Your task to perform on an android device: Go to internet settings Image 0: 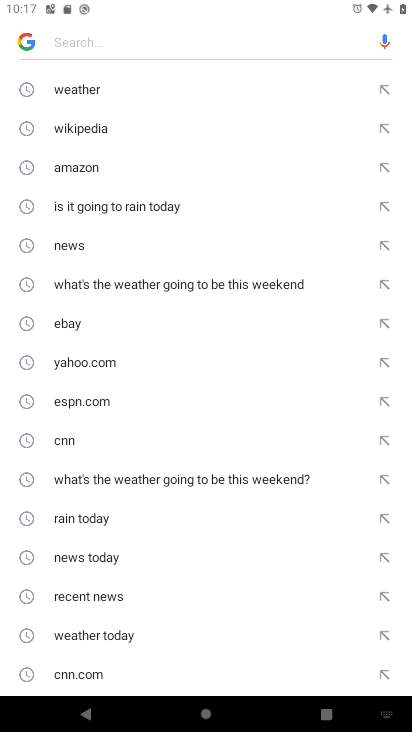
Step 0: press home button
Your task to perform on an android device: Go to internet settings Image 1: 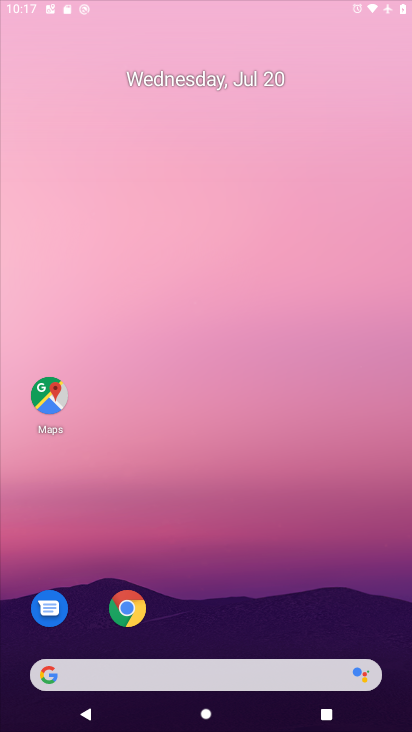
Step 1: drag from (195, 661) to (237, 329)
Your task to perform on an android device: Go to internet settings Image 2: 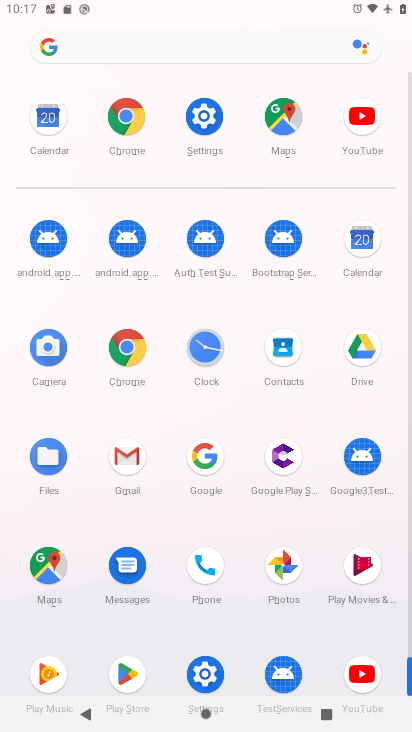
Step 2: click (209, 111)
Your task to perform on an android device: Go to internet settings Image 3: 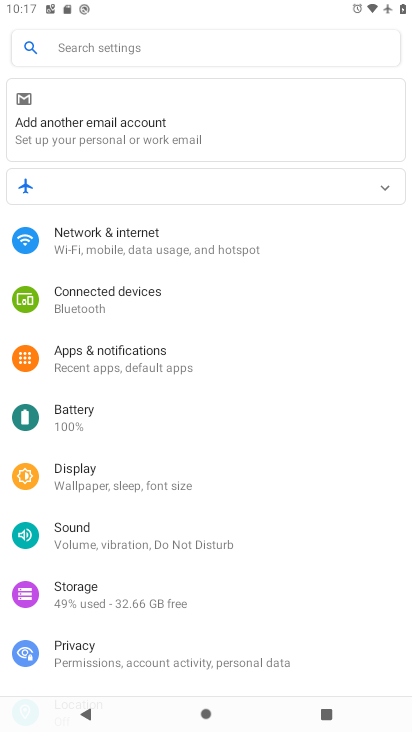
Step 3: click (140, 249)
Your task to perform on an android device: Go to internet settings Image 4: 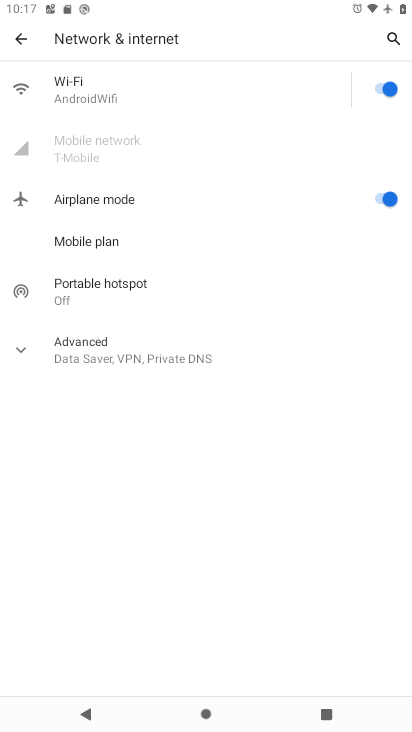
Step 4: click (243, 160)
Your task to perform on an android device: Go to internet settings Image 5: 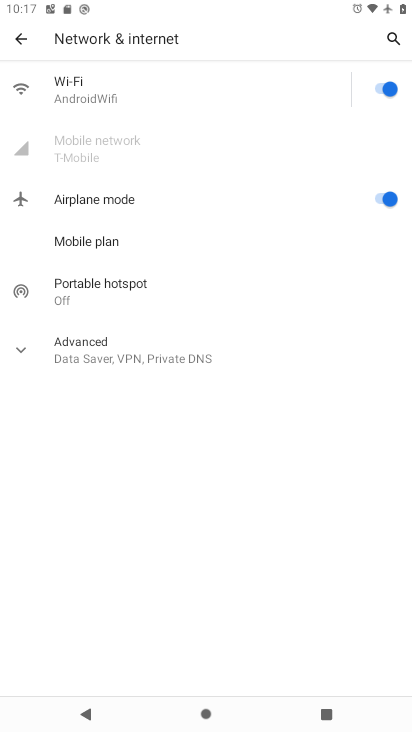
Step 5: task complete